Your task to perform on an android device: turn on location history Image 0: 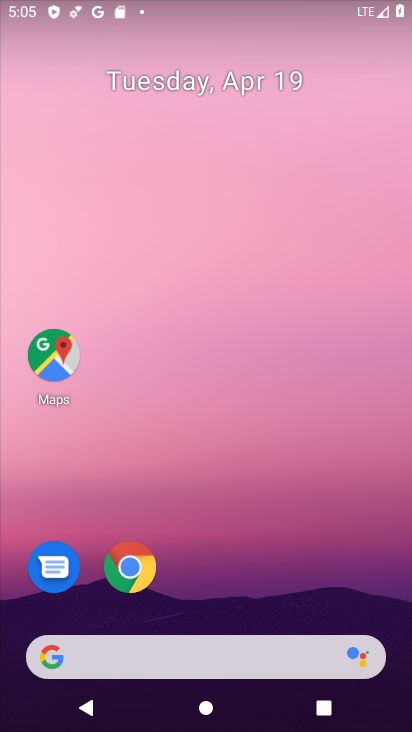
Step 0: press home button
Your task to perform on an android device: turn on location history Image 1: 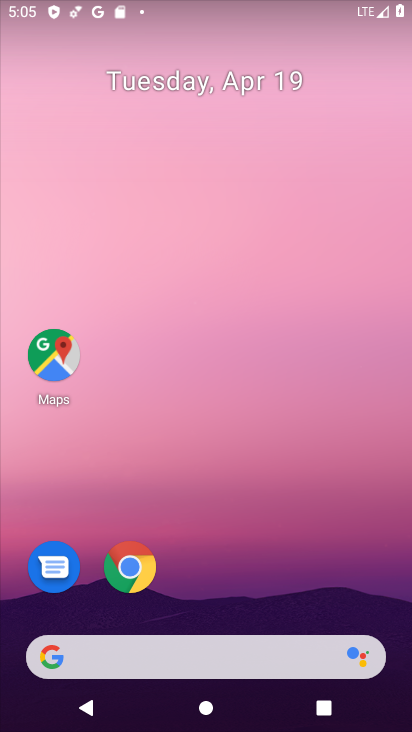
Step 1: drag from (324, 559) to (307, 110)
Your task to perform on an android device: turn on location history Image 2: 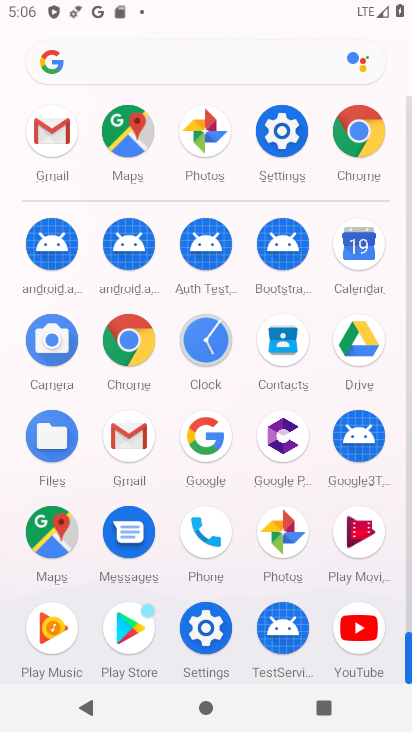
Step 2: click (208, 623)
Your task to perform on an android device: turn on location history Image 3: 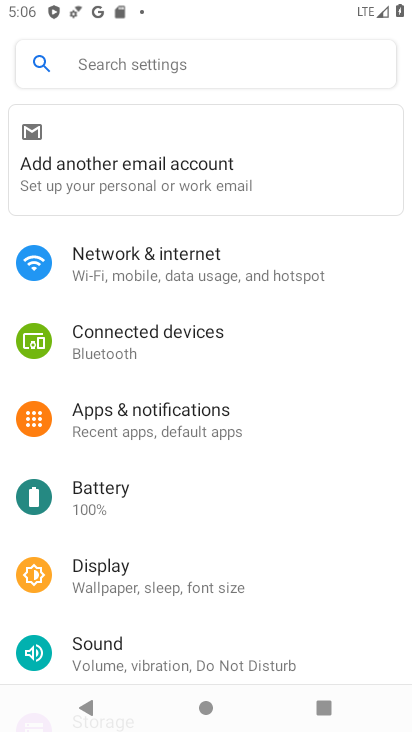
Step 3: drag from (256, 656) to (225, 198)
Your task to perform on an android device: turn on location history Image 4: 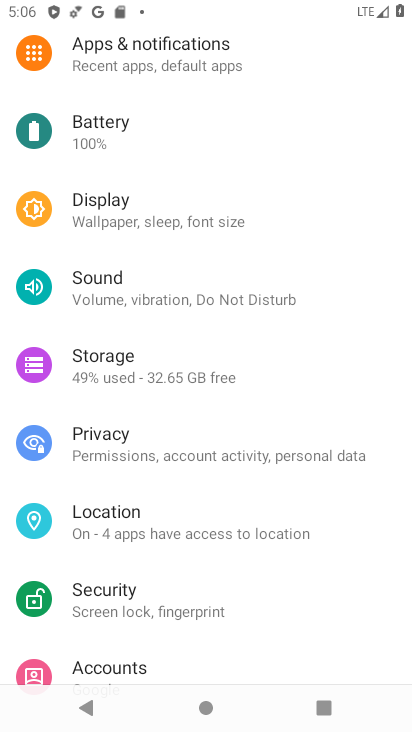
Step 4: click (174, 518)
Your task to perform on an android device: turn on location history Image 5: 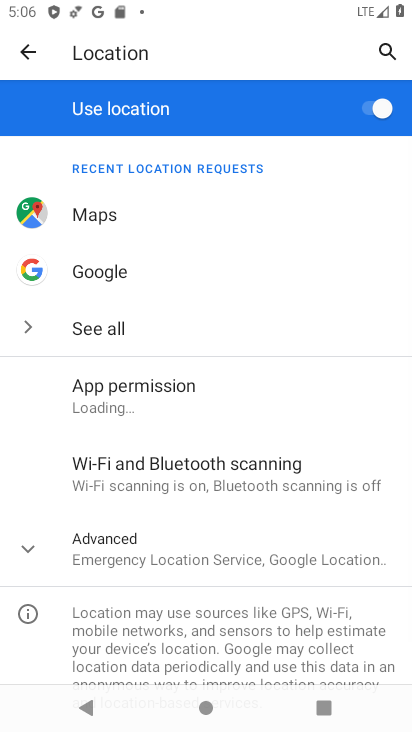
Step 5: drag from (234, 623) to (272, 231)
Your task to perform on an android device: turn on location history Image 6: 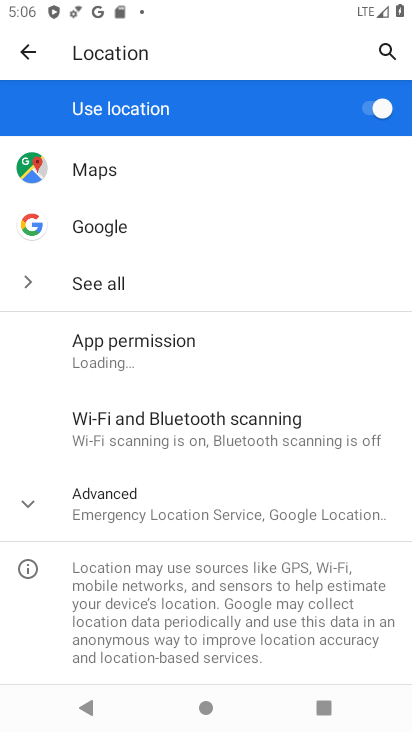
Step 6: click (185, 500)
Your task to perform on an android device: turn on location history Image 7: 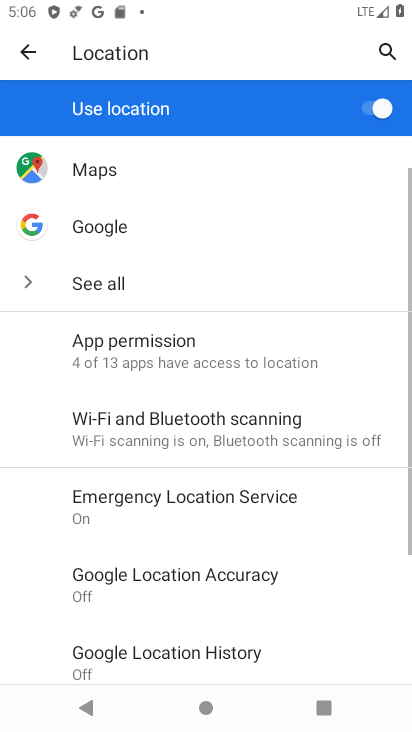
Step 7: drag from (240, 666) to (278, 355)
Your task to perform on an android device: turn on location history Image 8: 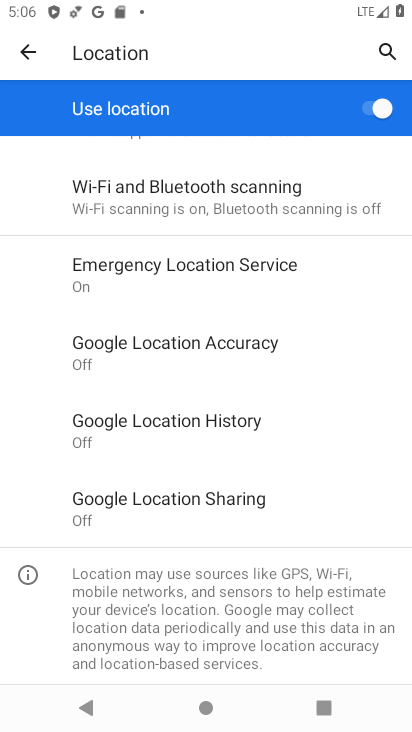
Step 8: click (247, 441)
Your task to perform on an android device: turn on location history Image 9: 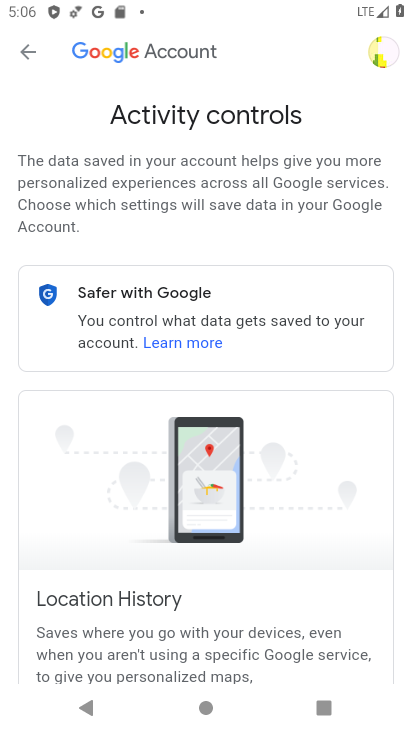
Step 9: task complete